Your task to perform on an android device: turn on showing notifications on the lock screen Image 0: 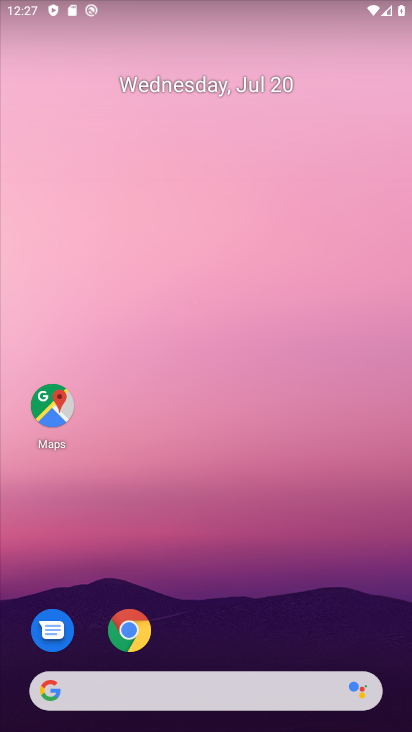
Step 0: drag from (276, 610) to (347, 24)
Your task to perform on an android device: turn on showing notifications on the lock screen Image 1: 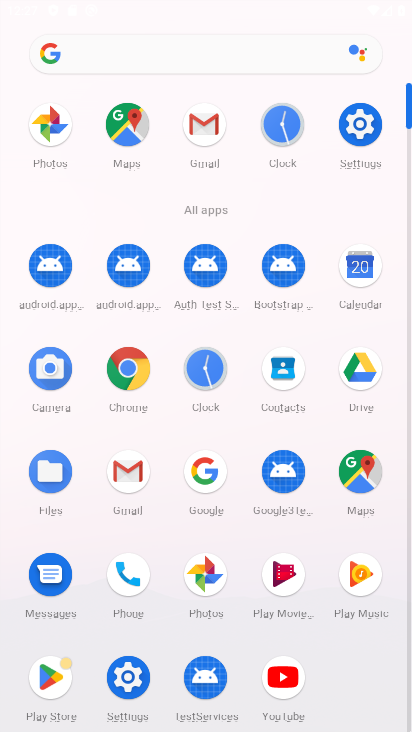
Step 1: click (364, 133)
Your task to perform on an android device: turn on showing notifications on the lock screen Image 2: 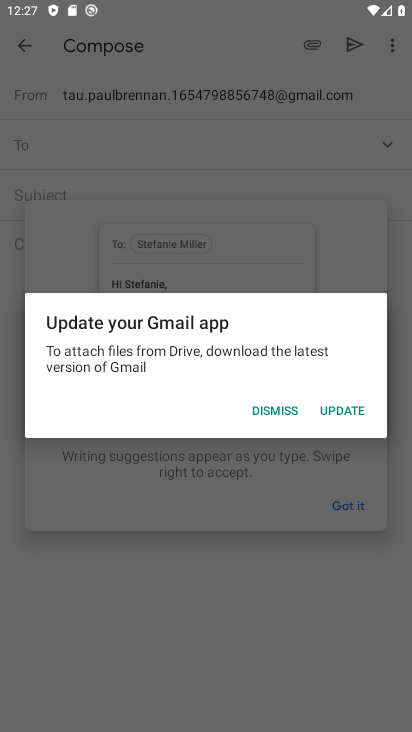
Step 2: press back button
Your task to perform on an android device: turn on showing notifications on the lock screen Image 3: 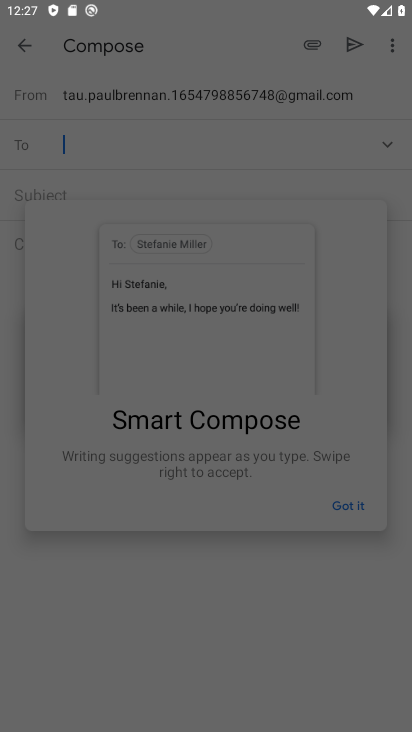
Step 3: press back button
Your task to perform on an android device: turn on showing notifications on the lock screen Image 4: 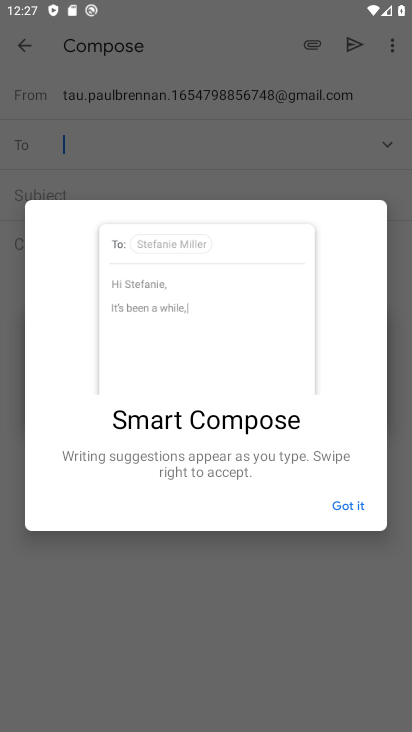
Step 4: press home button
Your task to perform on an android device: turn on showing notifications on the lock screen Image 5: 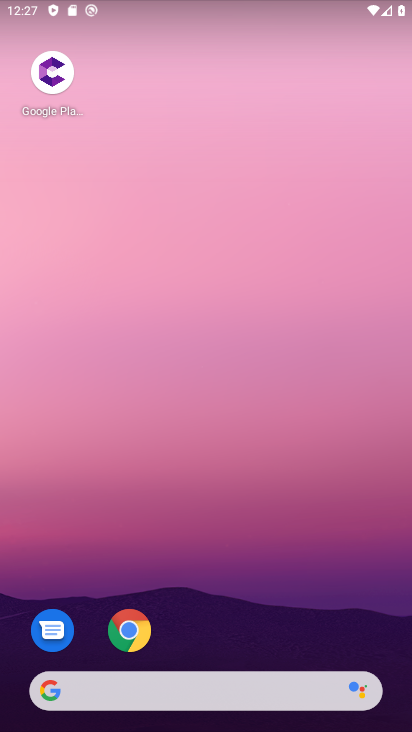
Step 5: drag from (222, 601) to (148, 94)
Your task to perform on an android device: turn on showing notifications on the lock screen Image 6: 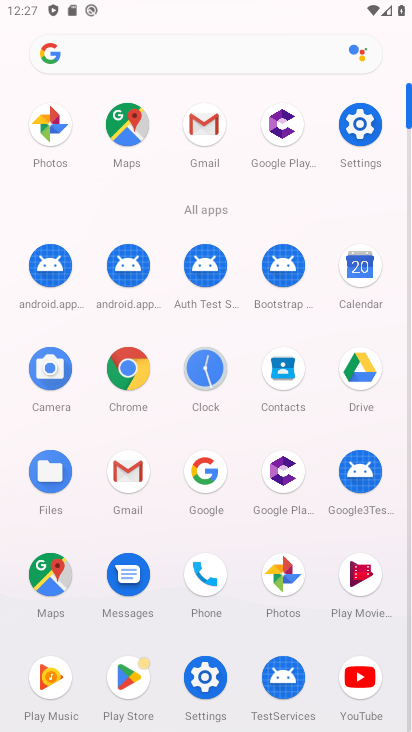
Step 6: click (358, 114)
Your task to perform on an android device: turn on showing notifications on the lock screen Image 7: 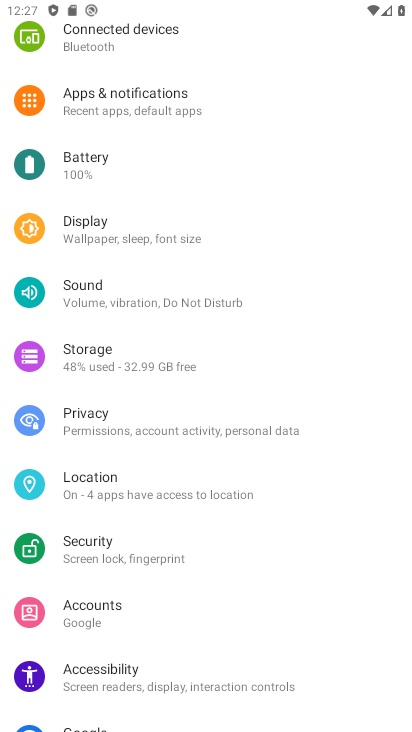
Step 7: click (146, 103)
Your task to perform on an android device: turn on showing notifications on the lock screen Image 8: 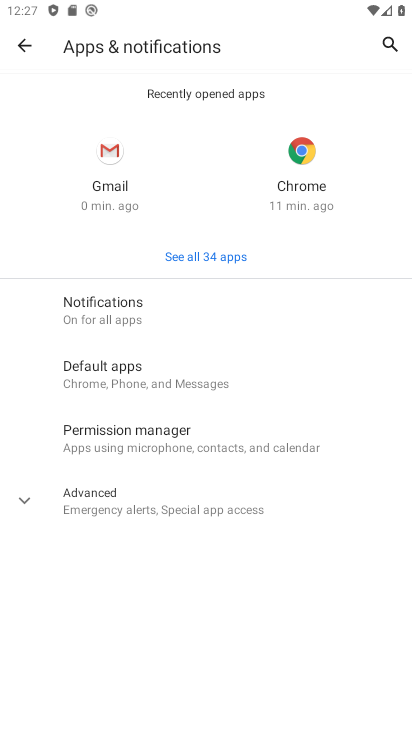
Step 8: click (117, 294)
Your task to perform on an android device: turn on showing notifications on the lock screen Image 9: 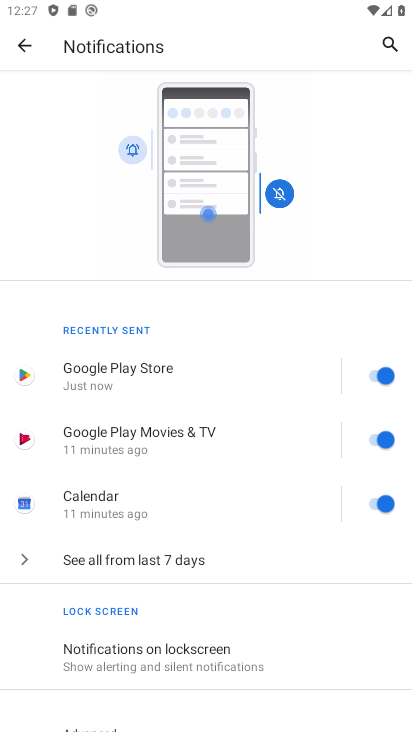
Step 9: click (130, 650)
Your task to perform on an android device: turn on showing notifications on the lock screen Image 10: 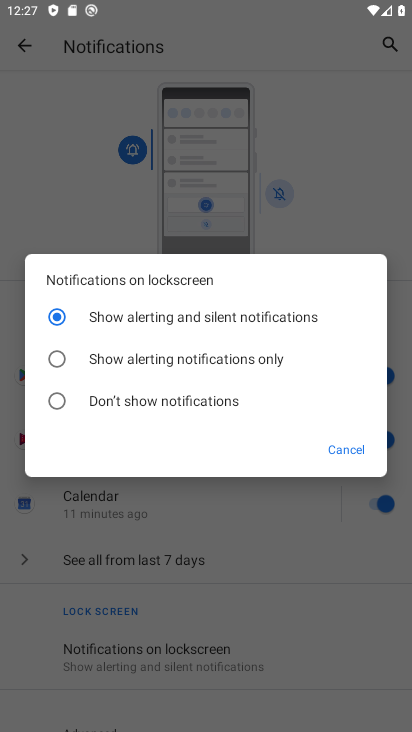
Step 10: click (226, 317)
Your task to perform on an android device: turn on showing notifications on the lock screen Image 11: 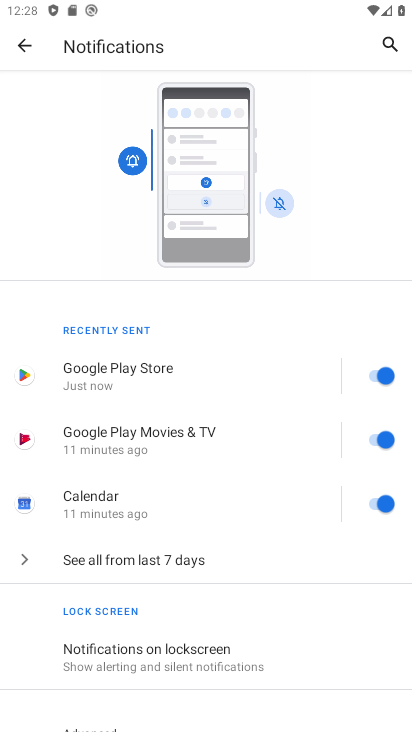
Step 11: task complete